Your task to perform on an android device: toggle show notifications on the lock screen Image 0: 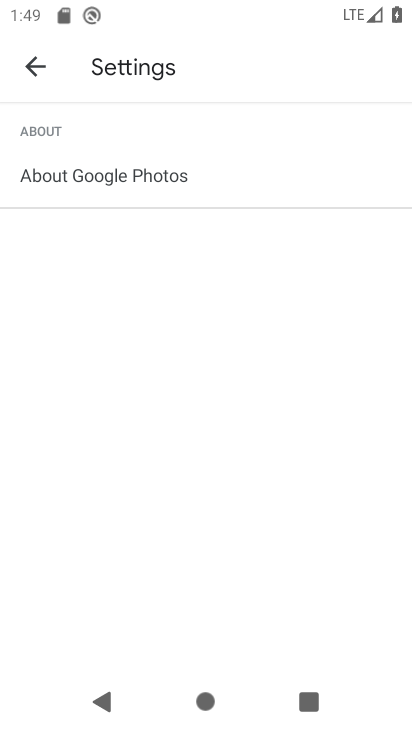
Step 0: press home button
Your task to perform on an android device: toggle show notifications on the lock screen Image 1: 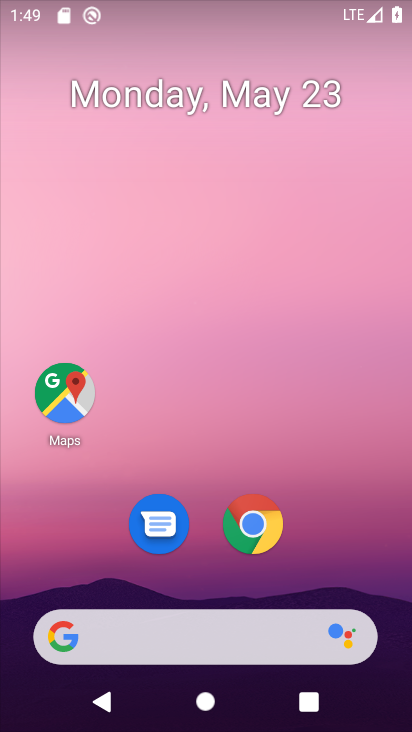
Step 1: drag from (226, 438) to (257, 0)
Your task to perform on an android device: toggle show notifications on the lock screen Image 2: 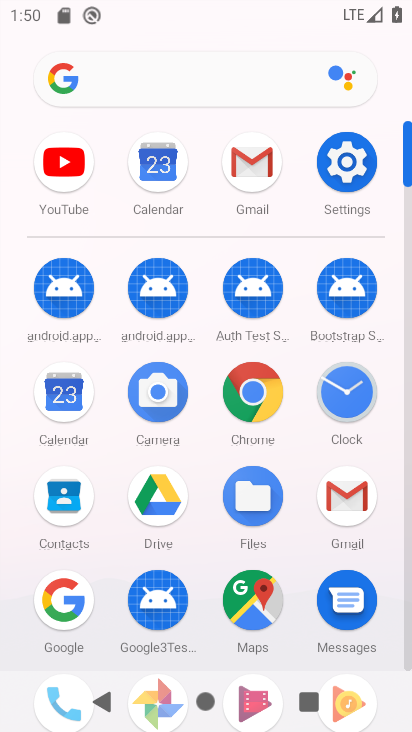
Step 2: click (345, 169)
Your task to perform on an android device: toggle show notifications on the lock screen Image 3: 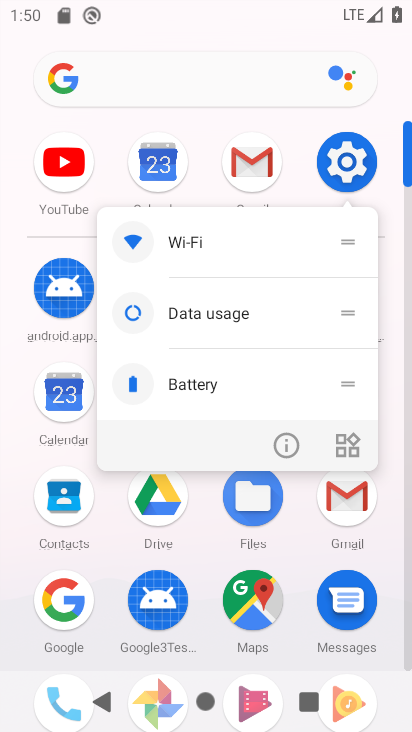
Step 3: click (345, 153)
Your task to perform on an android device: toggle show notifications on the lock screen Image 4: 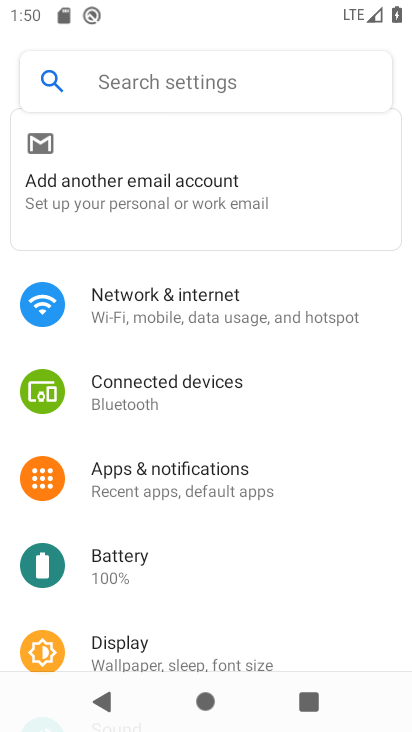
Step 4: drag from (211, 571) to (245, 400)
Your task to perform on an android device: toggle show notifications on the lock screen Image 5: 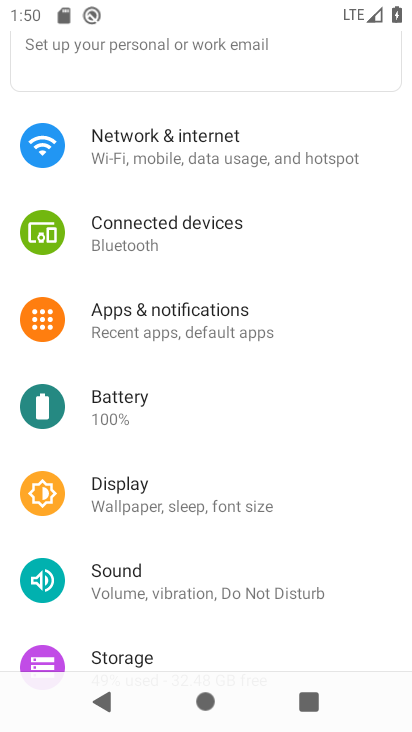
Step 5: click (230, 318)
Your task to perform on an android device: toggle show notifications on the lock screen Image 6: 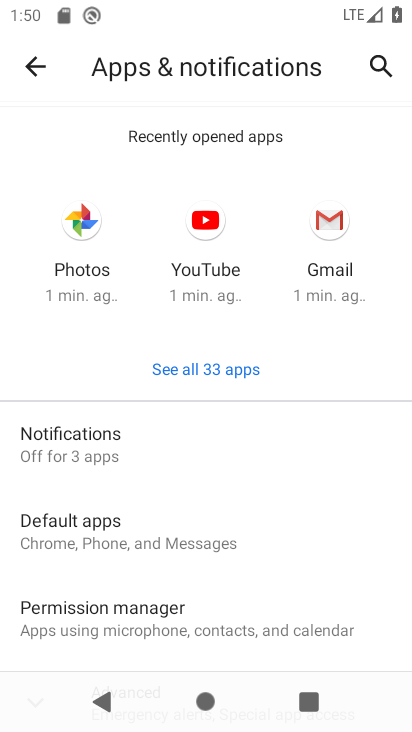
Step 6: drag from (229, 481) to (263, 253)
Your task to perform on an android device: toggle show notifications on the lock screen Image 7: 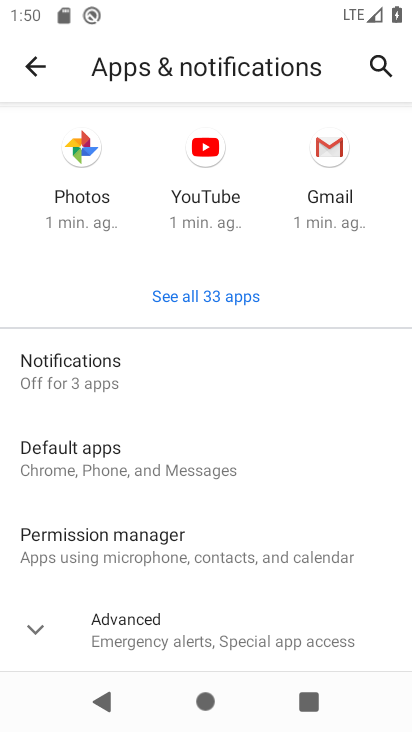
Step 7: click (162, 375)
Your task to perform on an android device: toggle show notifications on the lock screen Image 8: 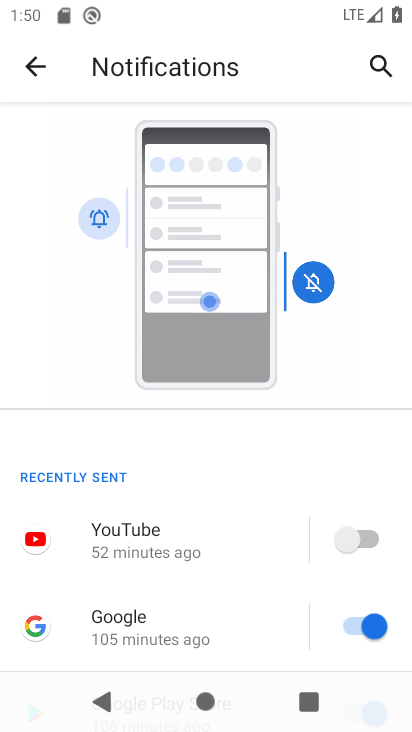
Step 8: drag from (215, 532) to (271, 173)
Your task to perform on an android device: toggle show notifications on the lock screen Image 9: 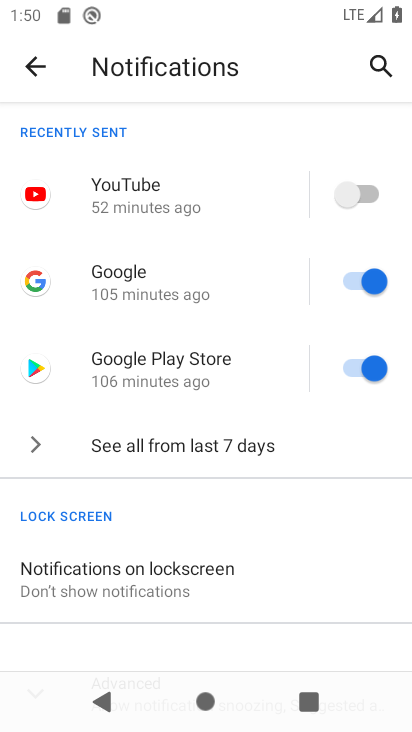
Step 9: click (224, 572)
Your task to perform on an android device: toggle show notifications on the lock screen Image 10: 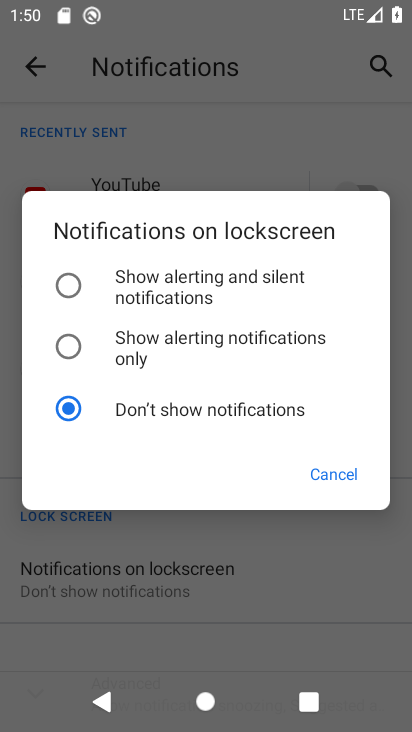
Step 10: click (69, 283)
Your task to perform on an android device: toggle show notifications on the lock screen Image 11: 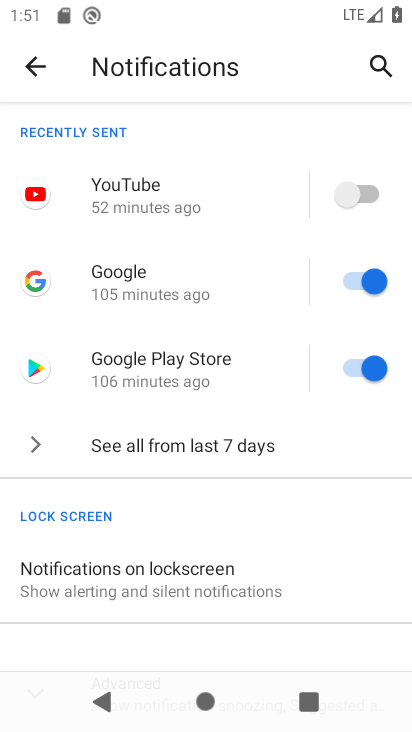
Step 11: task complete